Your task to perform on an android device: Open the stopwatch Image 0: 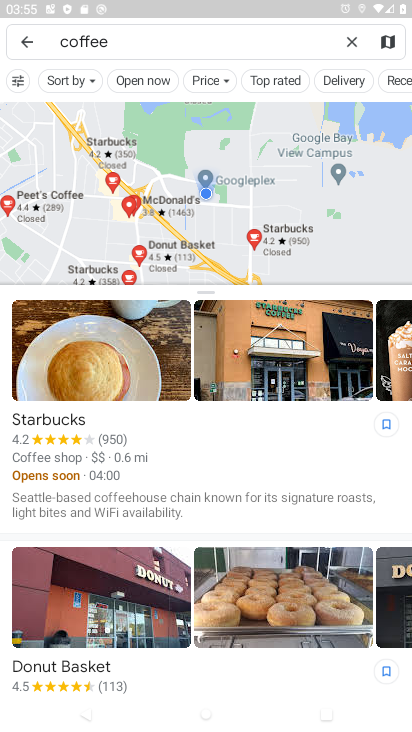
Step 0: press home button
Your task to perform on an android device: Open the stopwatch Image 1: 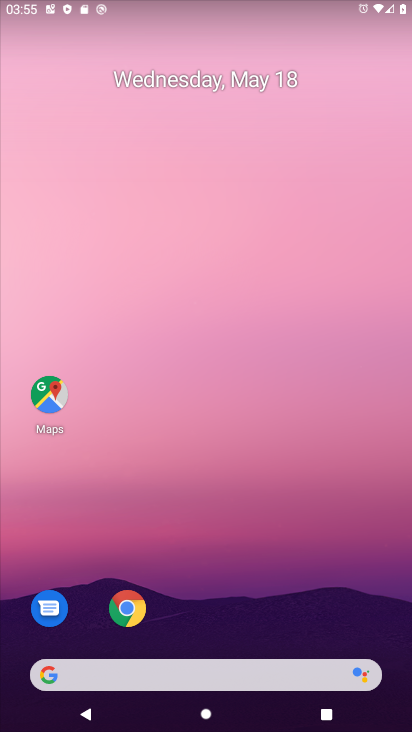
Step 1: drag from (192, 604) to (167, 13)
Your task to perform on an android device: Open the stopwatch Image 2: 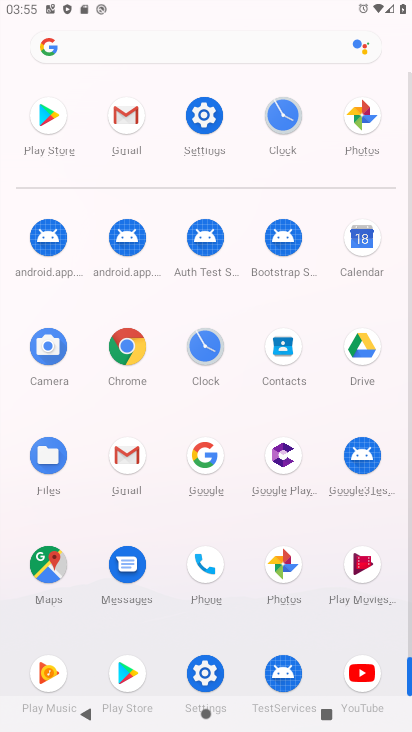
Step 2: click (269, 104)
Your task to perform on an android device: Open the stopwatch Image 3: 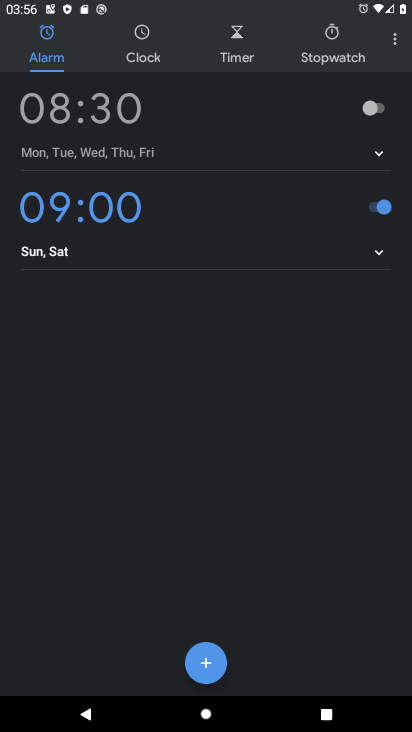
Step 3: click (346, 40)
Your task to perform on an android device: Open the stopwatch Image 4: 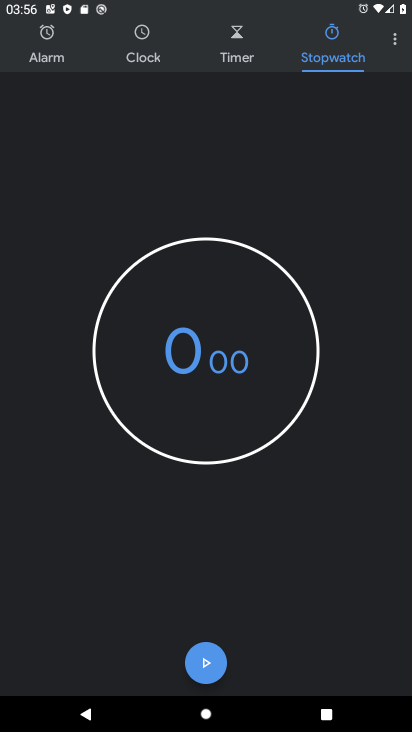
Step 4: task complete